Your task to perform on an android device: turn on javascript in the chrome app Image 0: 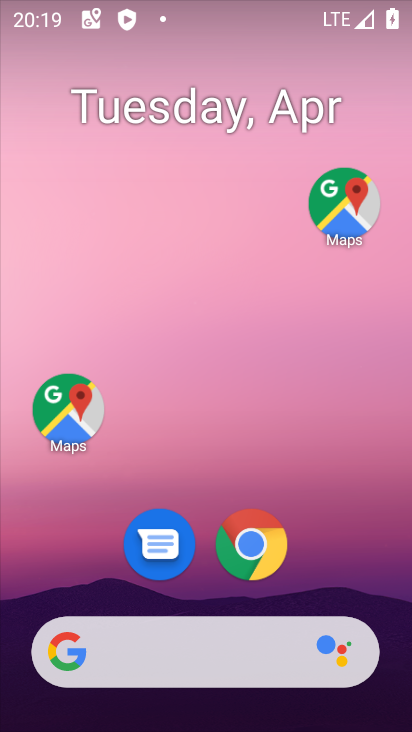
Step 0: click (288, 167)
Your task to perform on an android device: turn on javascript in the chrome app Image 1: 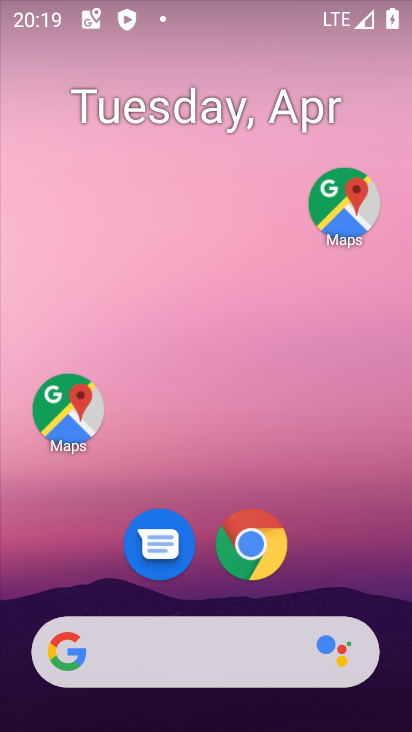
Step 1: drag from (171, 643) to (350, 33)
Your task to perform on an android device: turn on javascript in the chrome app Image 2: 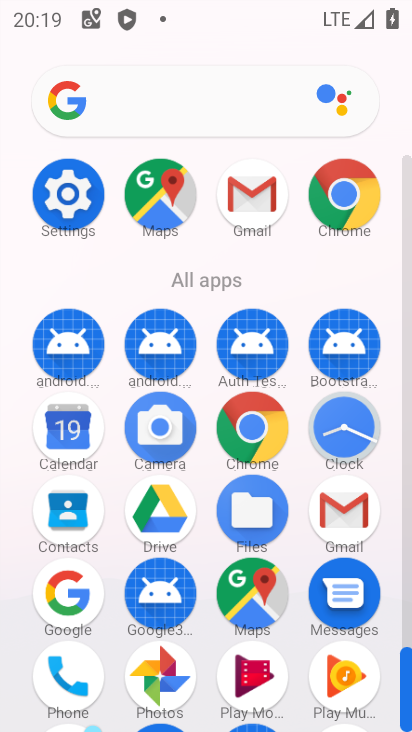
Step 2: click (347, 204)
Your task to perform on an android device: turn on javascript in the chrome app Image 3: 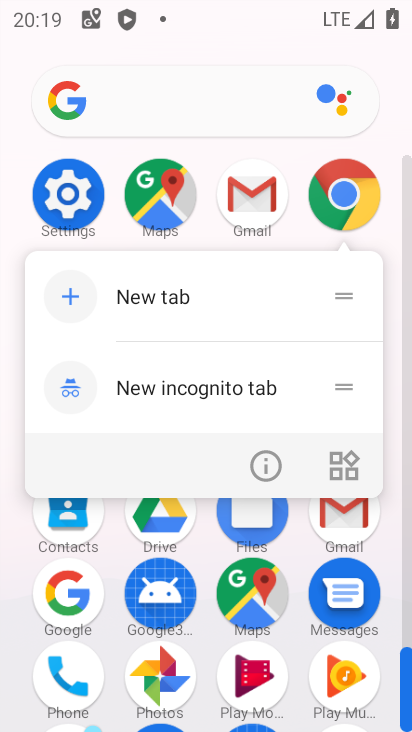
Step 3: click (349, 201)
Your task to perform on an android device: turn on javascript in the chrome app Image 4: 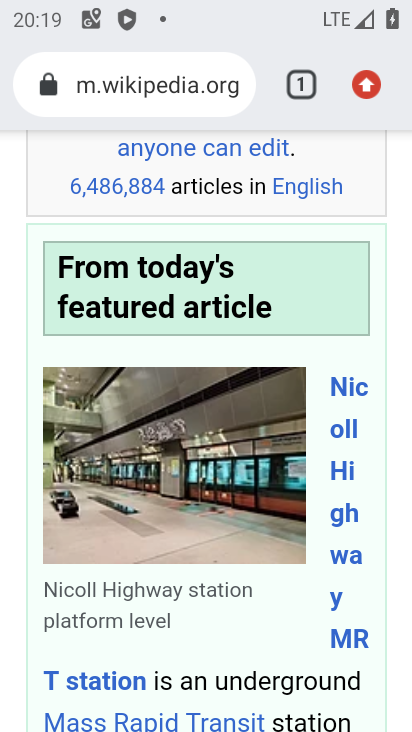
Step 4: click (377, 97)
Your task to perform on an android device: turn on javascript in the chrome app Image 5: 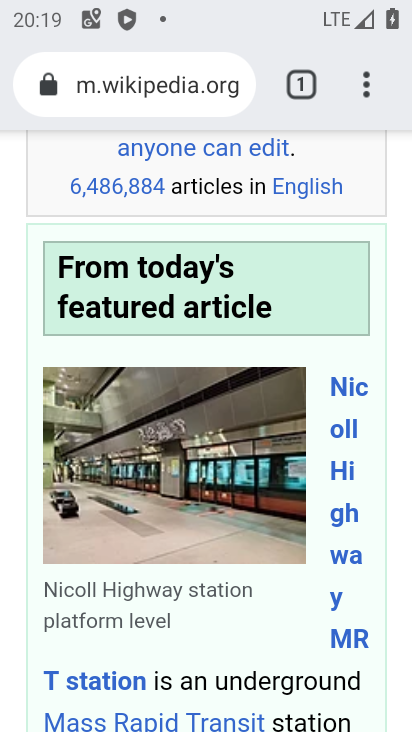
Step 5: click (366, 94)
Your task to perform on an android device: turn on javascript in the chrome app Image 6: 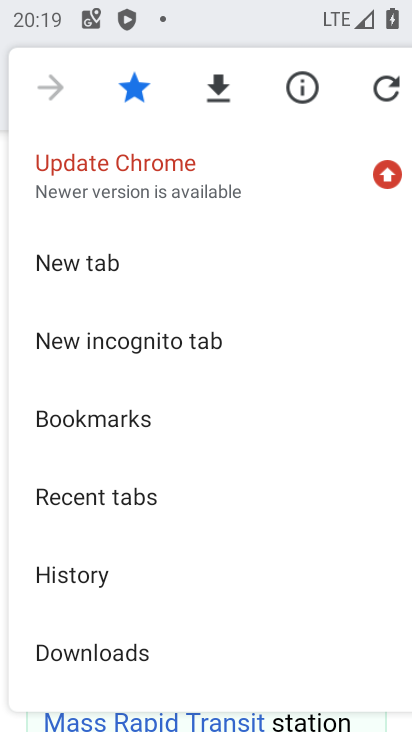
Step 6: drag from (183, 540) to (315, 183)
Your task to perform on an android device: turn on javascript in the chrome app Image 7: 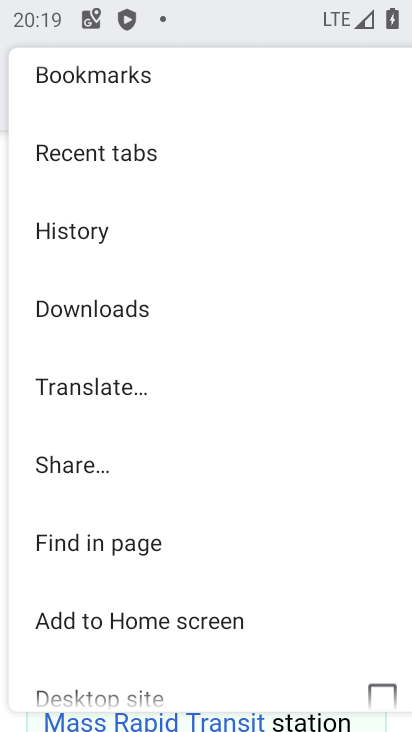
Step 7: drag from (264, 510) to (397, 85)
Your task to perform on an android device: turn on javascript in the chrome app Image 8: 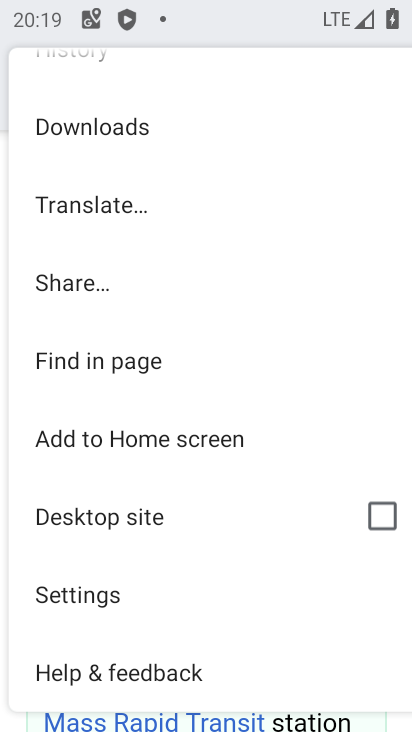
Step 8: click (104, 595)
Your task to perform on an android device: turn on javascript in the chrome app Image 9: 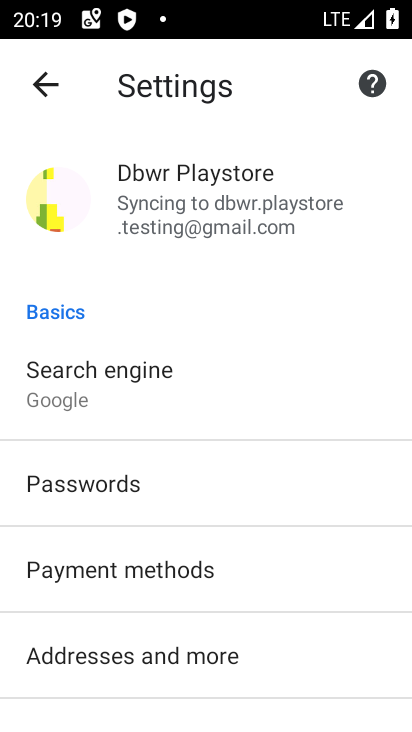
Step 9: drag from (219, 599) to (377, 191)
Your task to perform on an android device: turn on javascript in the chrome app Image 10: 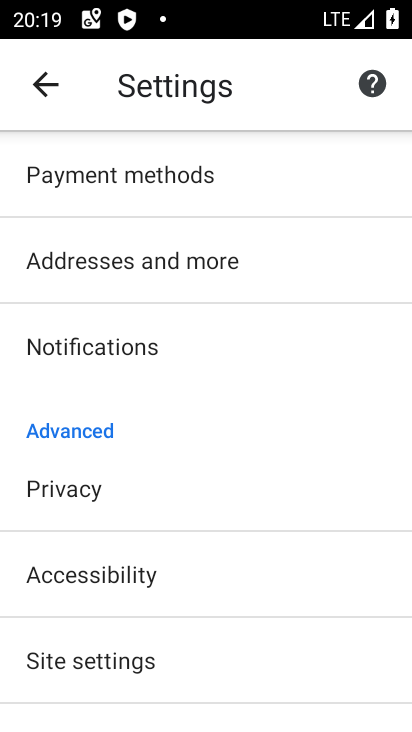
Step 10: click (138, 662)
Your task to perform on an android device: turn on javascript in the chrome app Image 11: 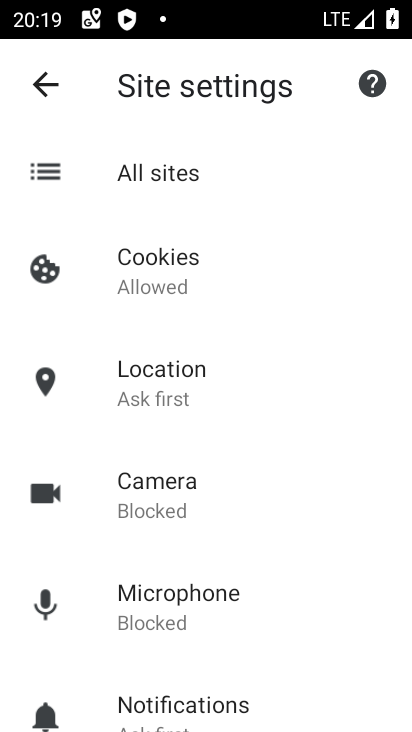
Step 11: drag from (247, 642) to (381, 190)
Your task to perform on an android device: turn on javascript in the chrome app Image 12: 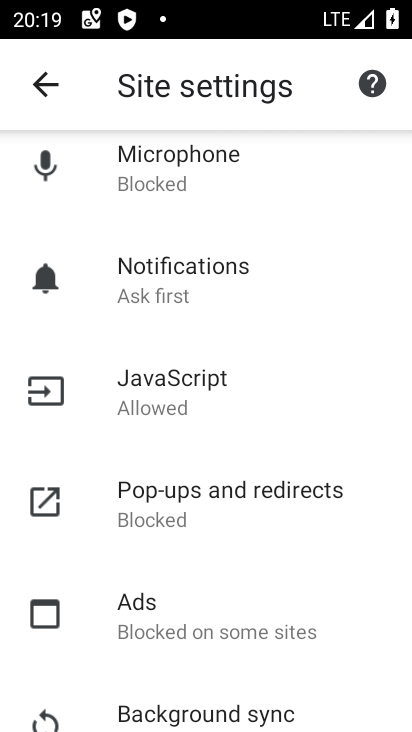
Step 12: click (197, 385)
Your task to perform on an android device: turn on javascript in the chrome app Image 13: 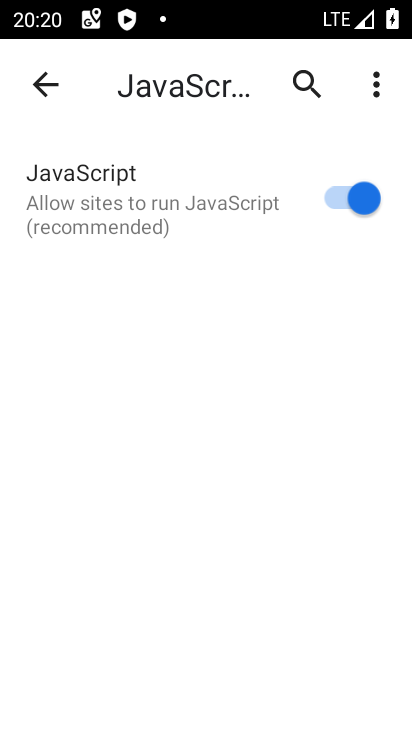
Step 13: task complete